Your task to perform on an android device: turn off javascript in the chrome app Image 0: 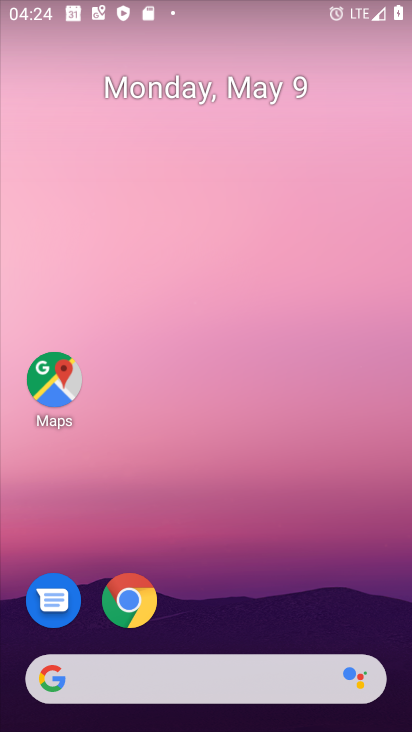
Step 0: drag from (233, 666) to (215, 166)
Your task to perform on an android device: turn off javascript in the chrome app Image 1: 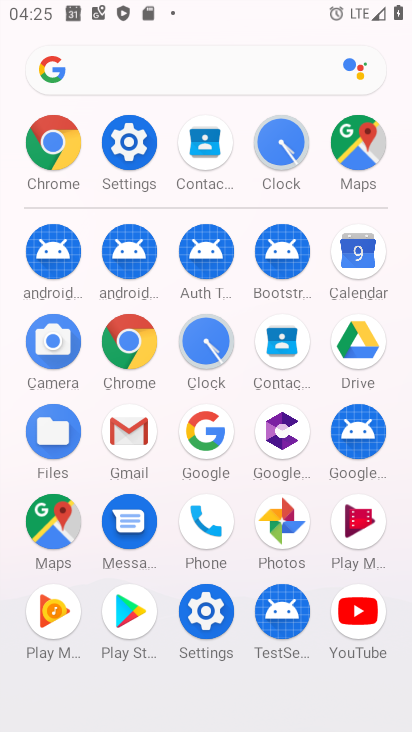
Step 1: click (129, 353)
Your task to perform on an android device: turn off javascript in the chrome app Image 2: 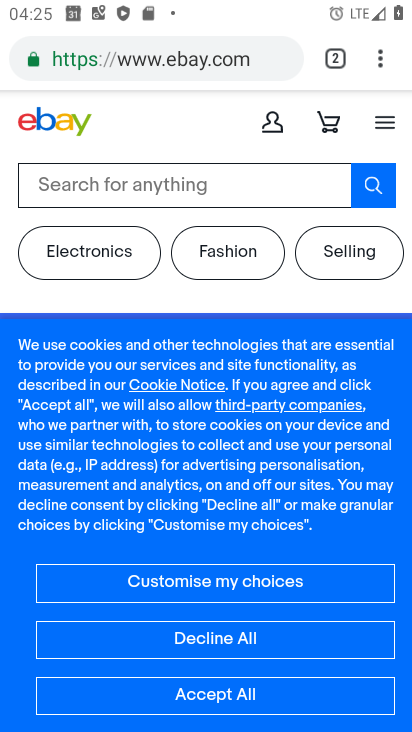
Step 2: drag from (381, 51) to (181, 628)
Your task to perform on an android device: turn off javascript in the chrome app Image 3: 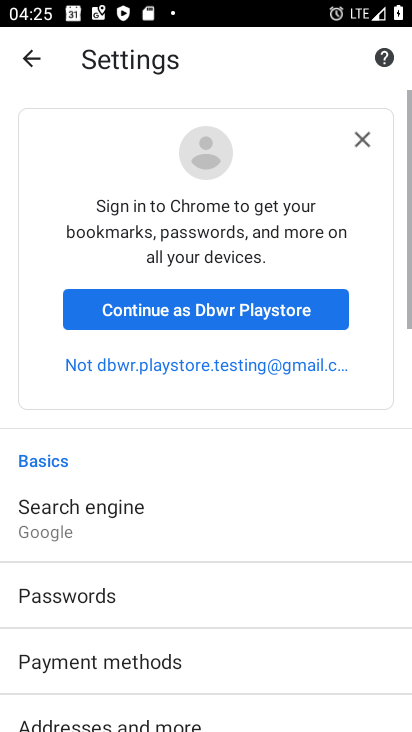
Step 3: drag from (181, 647) to (170, 148)
Your task to perform on an android device: turn off javascript in the chrome app Image 4: 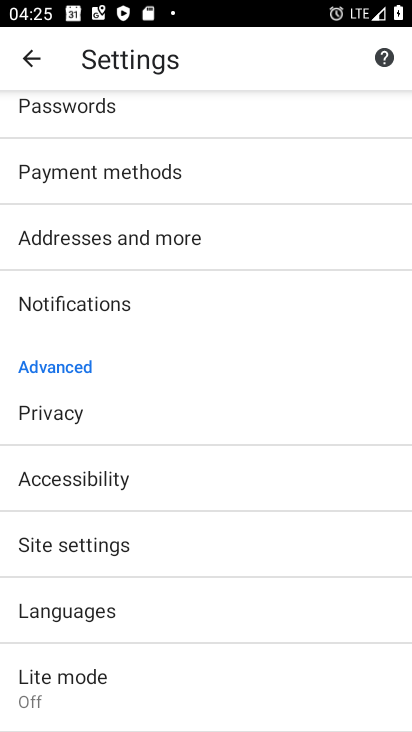
Step 4: click (96, 560)
Your task to perform on an android device: turn off javascript in the chrome app Image 5: 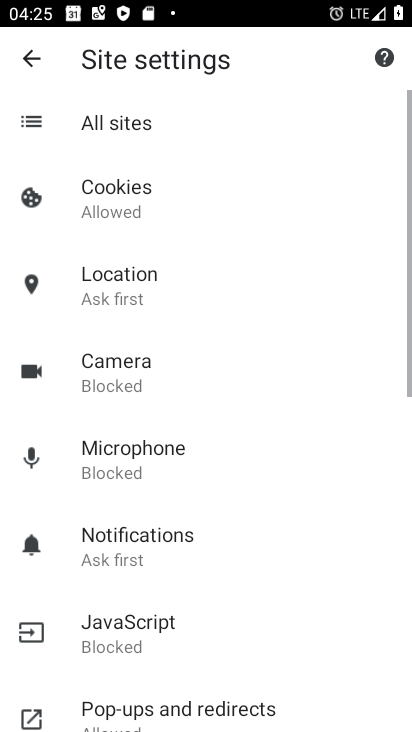
Step 5: drag from (134, 664) to (145, 317)
Your task to perform on an android device: turn off javascript in the chrome app Image 6: 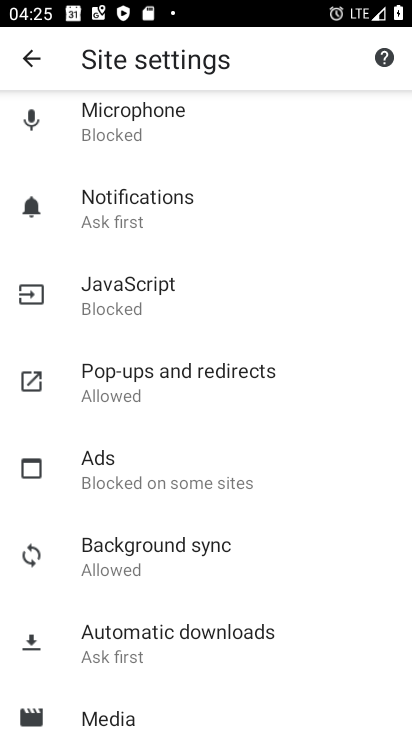
Step 6: click (150, 321)
Your task to perform on an android device: turn off javascript in the chrome app Image 7: 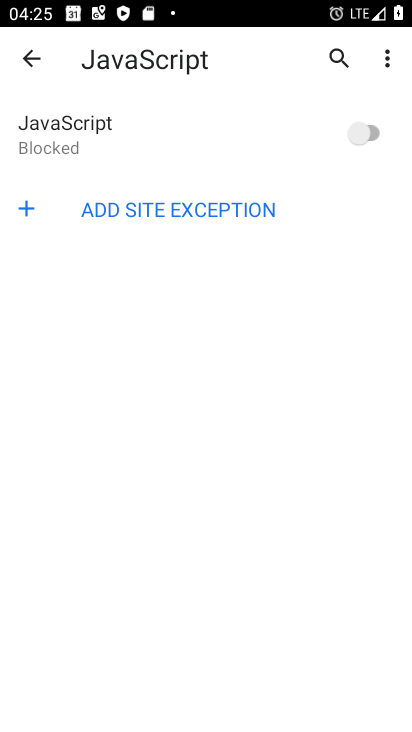
Step 7: task complete